Your task to perform on an android device: Open Yahoo.com Image 0: 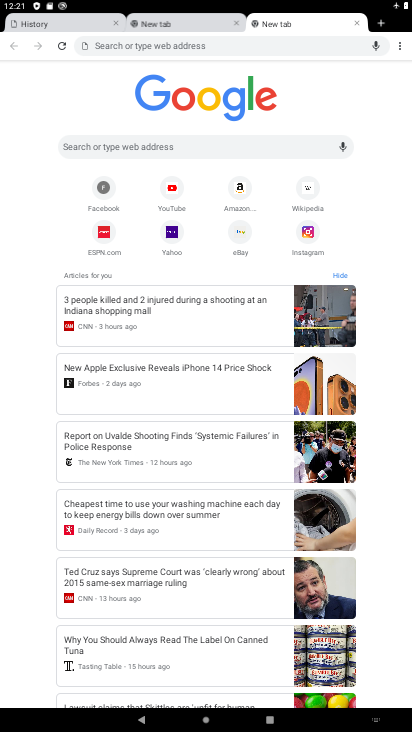
Step 0: press home button
Your task to perform on an android device: Open Yahoo.com Image 1: 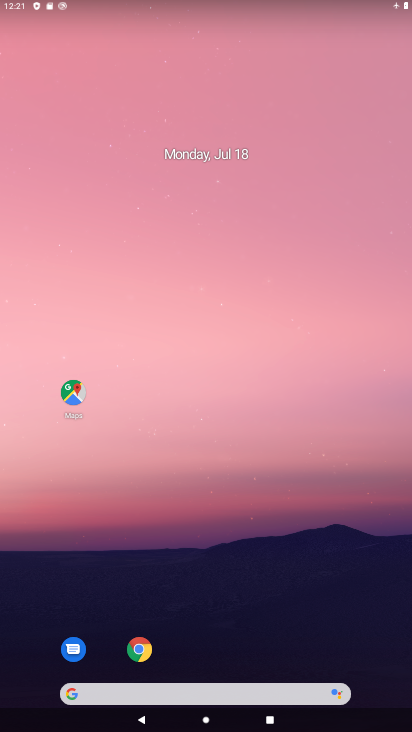
Step 1: click (165, 691)
Your task to perform on an android device: Open Yahoo.com Image 2: 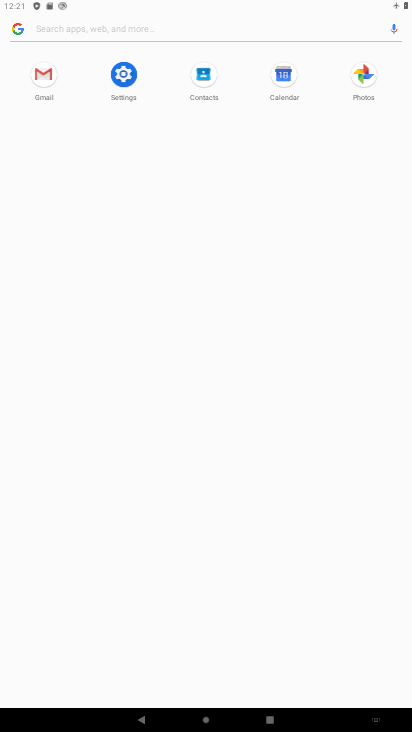
Step 2: type "Yahoo.com"
Your task to perform on an android device: Open Yahoo.com Image 3: 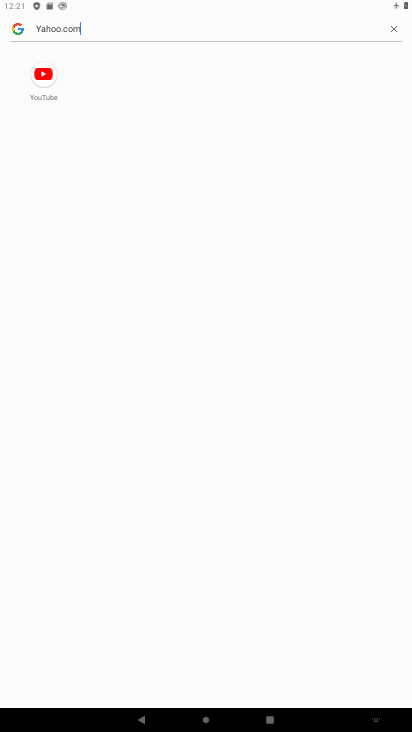
Step 3: type ""
Your task to perform on an android device: Open Yahoo.com Image 4: 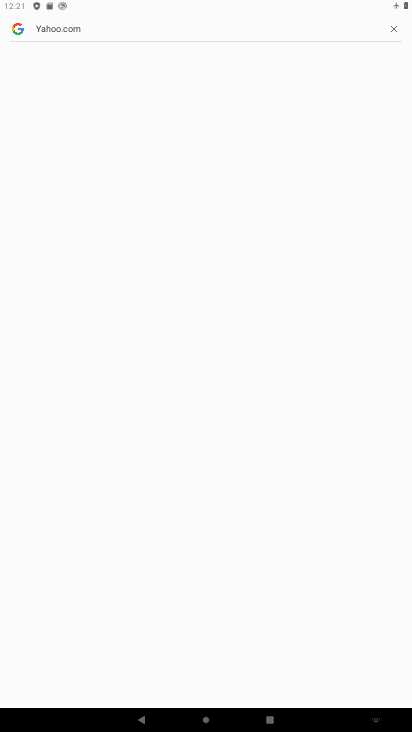
Step 4: type ""
Your task to perform on an android device: Open Yahoo.com Image 5: 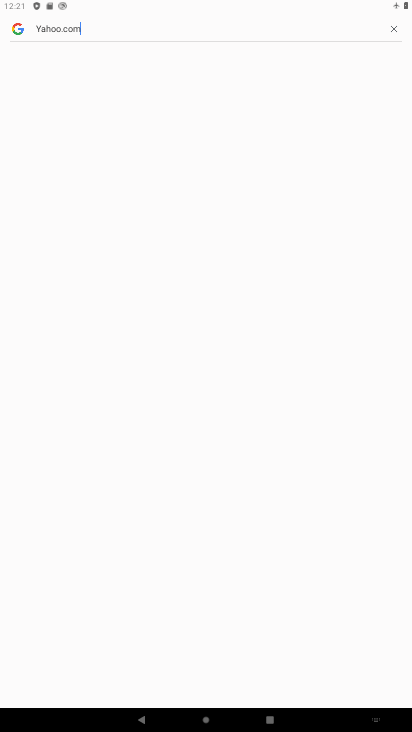
Step 5: type ""
Your task to perform on an android device: Open Yahoo.com Image 6: 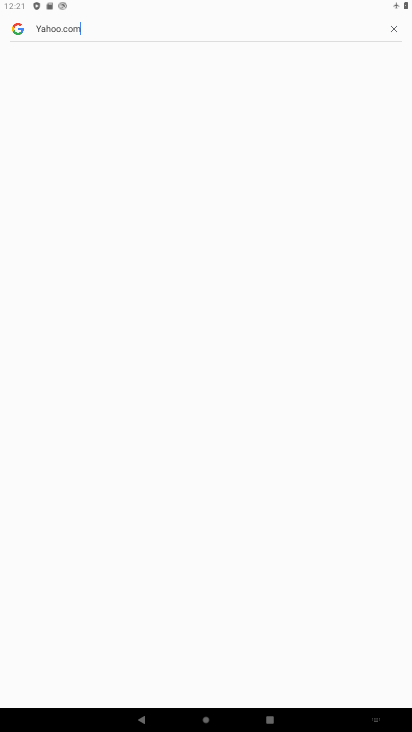
Step 6: task complete